Your task to perform on an android device: Go to wifi settings Image 0: 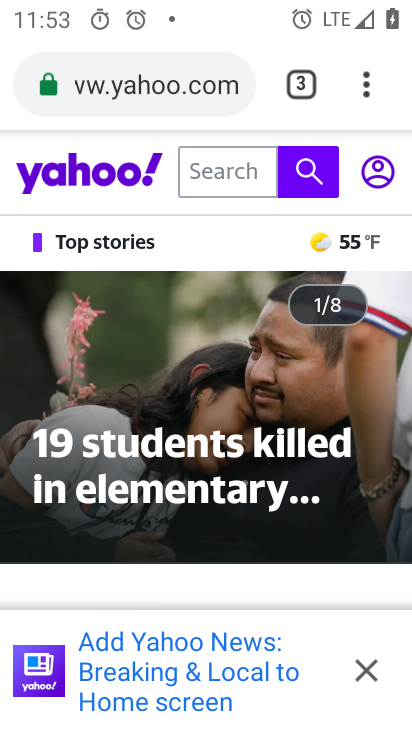
Step 0: press home button
Your task to perform on an android device: Go to wifi settings Image 1: 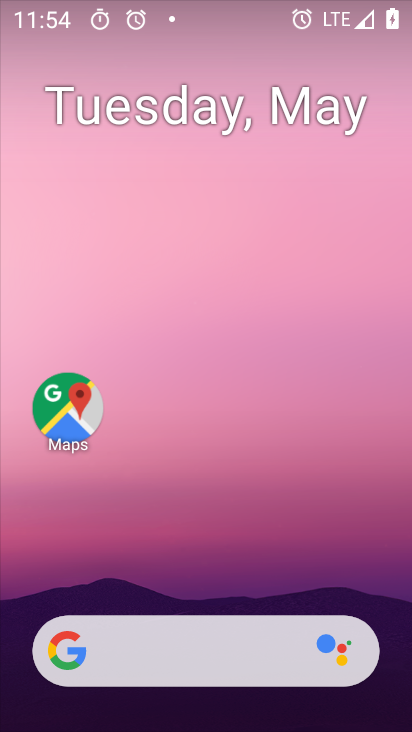
Step 1: drag from (183, 630) to (284, 209)
Your task to perform on an android device: Go to wifi settings Image 2: 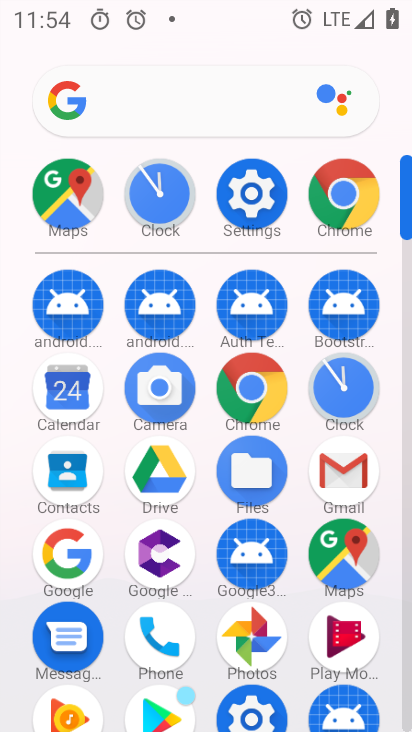
Step 2: click (261, 179)
Your task to perform on an android device: Go to wifi settings Image 3: 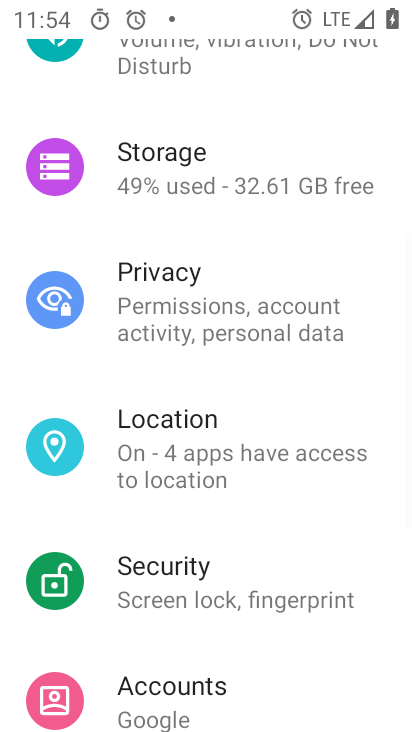
Step 3: drag from (196, 119) to (245, 731)
Your task to perform on an android device: Go to wifi settings Image 4: 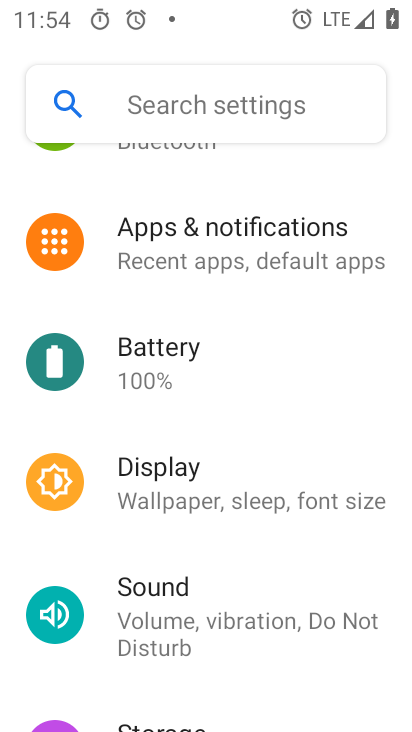
Step 4: drag from (265, 214) to (257, 710)
Your task to perform on an android device: Go to wifi settings Image 5: 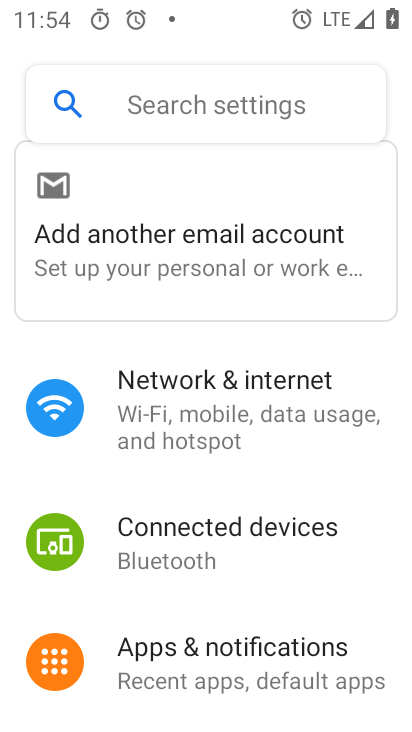
Step 5: click (160, 402)
Your task to perform on an android device: Go to wifi settings Image 6: 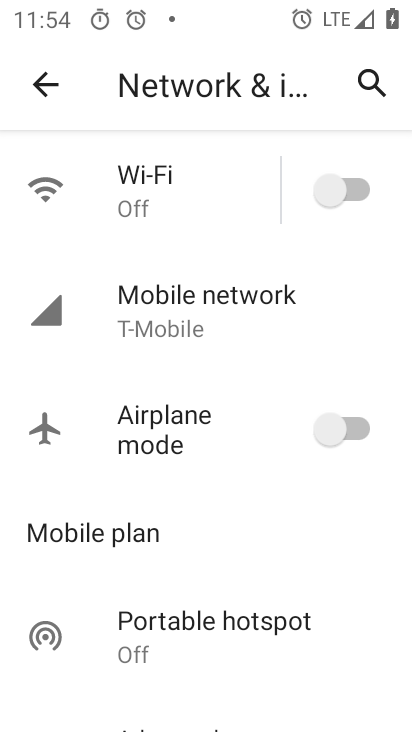
Step 6: click (144, 181)
Your task to perform on an android device: Go to wifi settings Image 7: 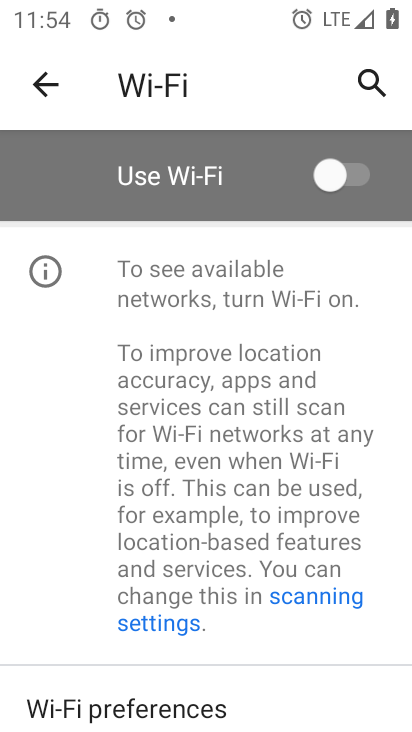
Step 7: task complete